Your task to perform on an android device: remove spam from my inbox in the gmail app Image 0: 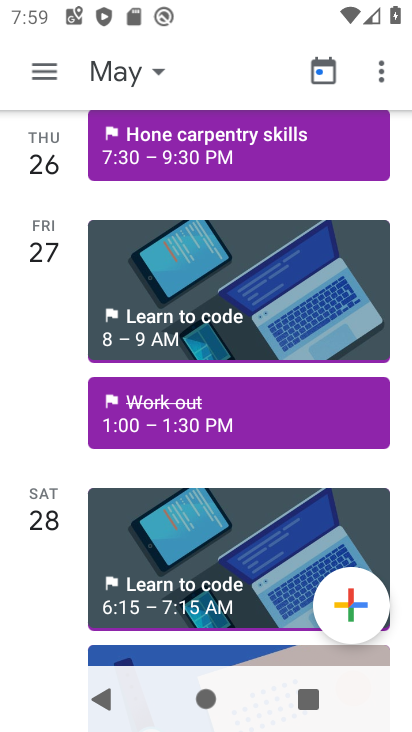
Step 0: press home button
Your task to perform on an android device: remove spam from my inbox in the gmail app Image 1: 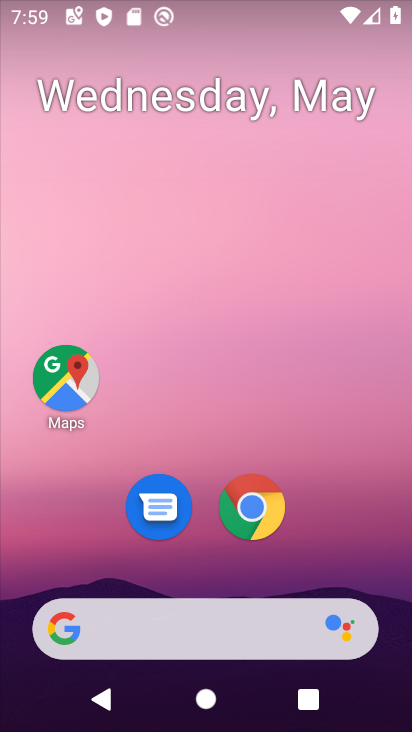
Step 1: drag from (345, 553) to (293, 226)
Your task to perform on an android device: remove spam from my inbox in the gmail app Image 2: 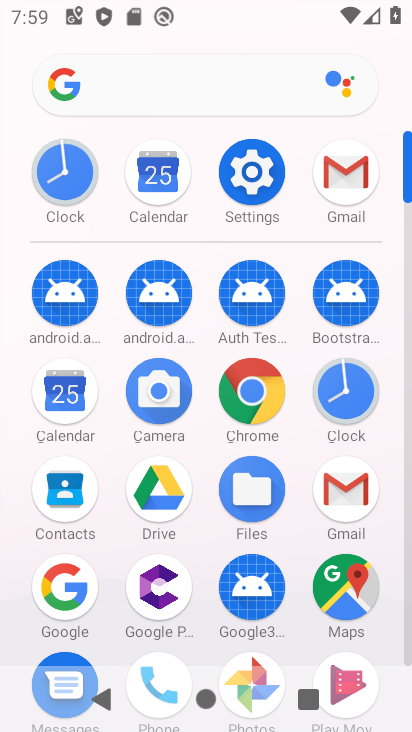
Step 2: click (330, 483)
Your task to perform on an android device: remove spam from my inbox in the gmail app Image 3: 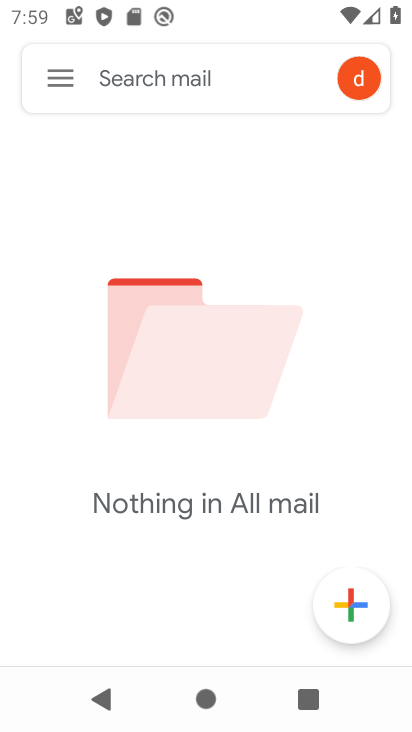
Step 3: click (56, 69)
Your task to perform on an android device: remove spam from my inbox in the gmail app Image 4: 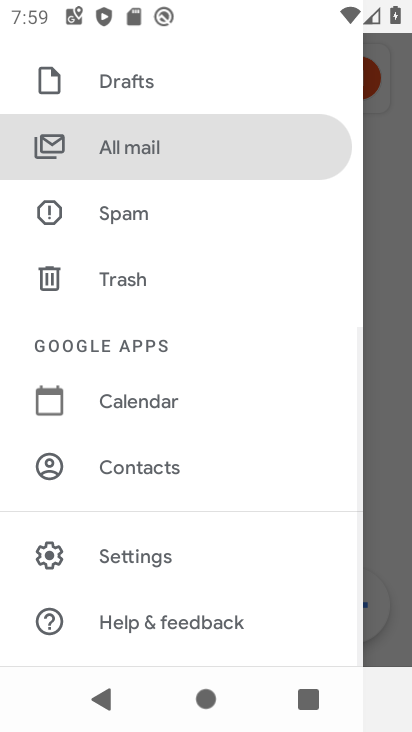
Step 4: click (123, 221)
Your task to perform on an android device: remove spam from my inbox in the gmail app Image 5: 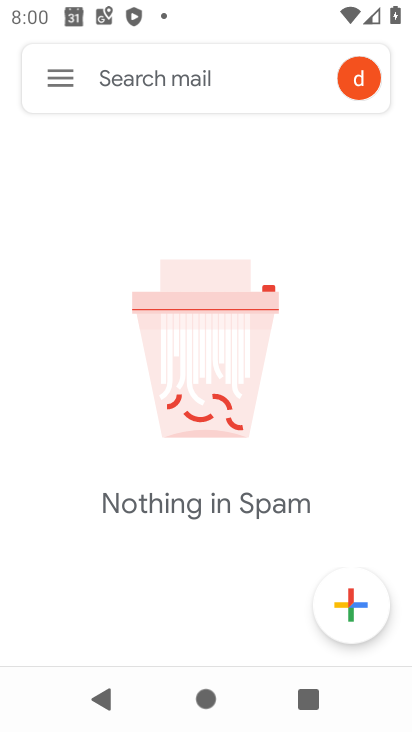
Step 5: click (72, 72)
Your task to perform on an android device: remove spam from my inbox in the gmail app Image 6: 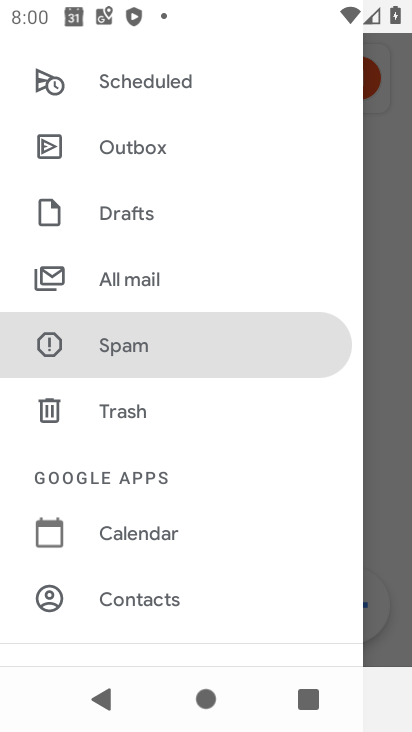
Step 6: task complete